Your task to perform on an android device: change the clock display to show seconds Image 0: 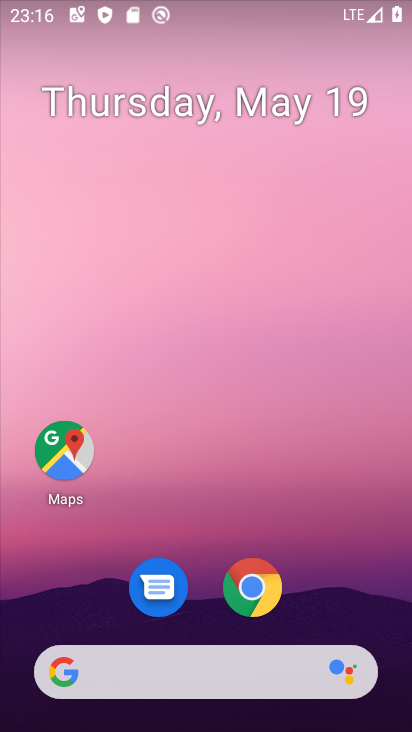
Step 0: drag from (248, 673) to (205, 227)
Your task to perform on an android device: change the clock display to show seconds Image 1: 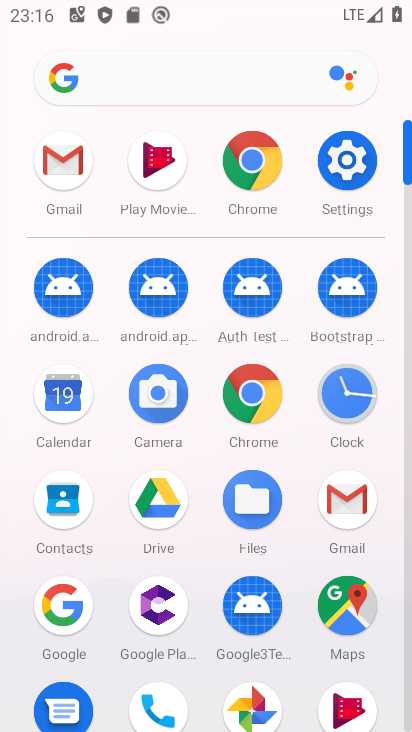
Step 1: click (362, 396)
Your task to perform on an android device: change the clock display to show seconds Image 2: 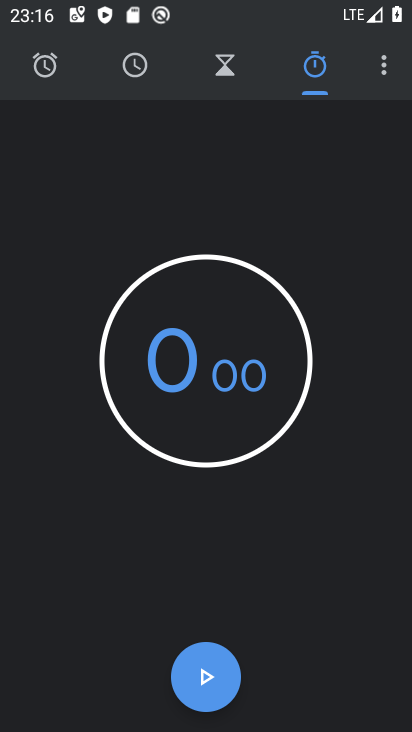
Step 2: click (392, 79)
Your task to perform on an android device: change the clock display to show seconds Image 3: 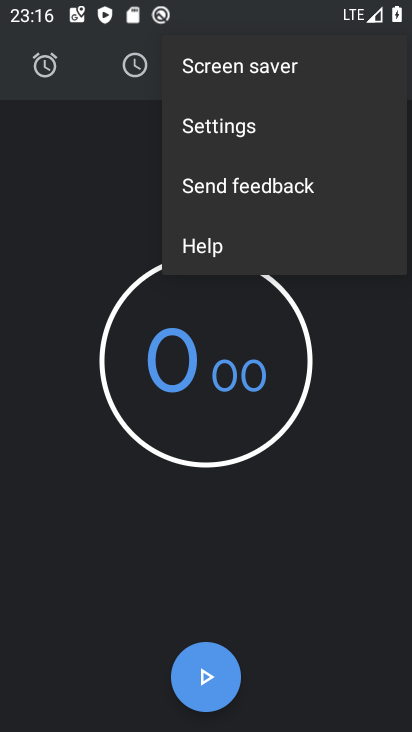
Step 3: click (243, 123)
Your task to perform on an android device: change the clock display to show seconds Image 4: 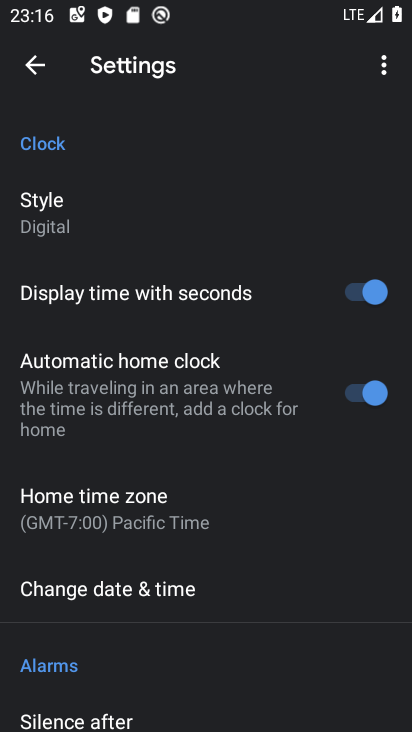
Step 4: click (271, 292)
Your task to perform on an android device: change the clock display to show seconds Image 5: 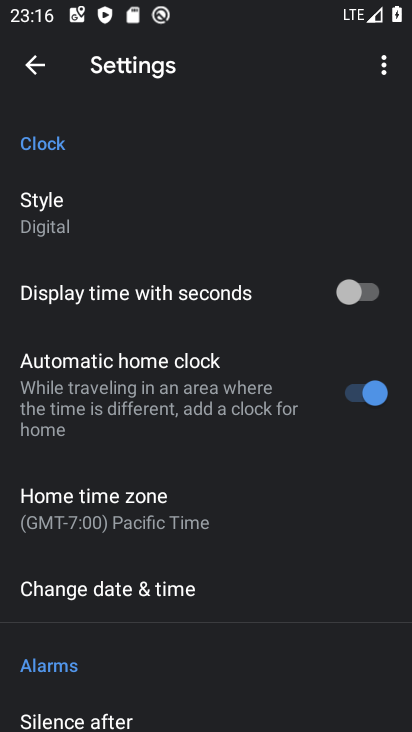
Step 5: task complete